Your task to perform on an android device: Search for Italian restaurants on Maps Image 0: 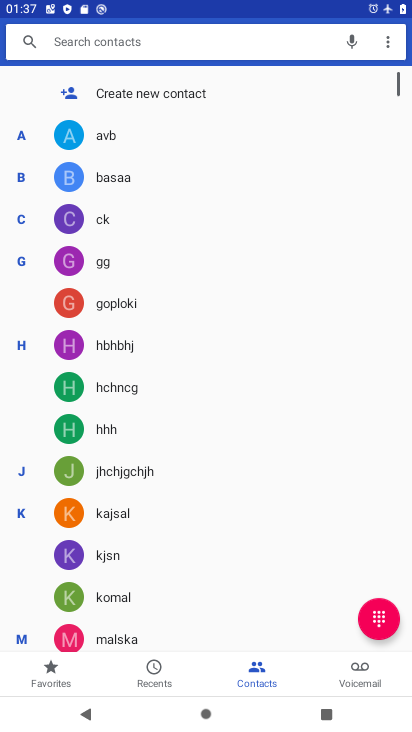
Step 0: press home button
Your task to perform on an android device: Search for Italian restaurants on Maps Image 1: 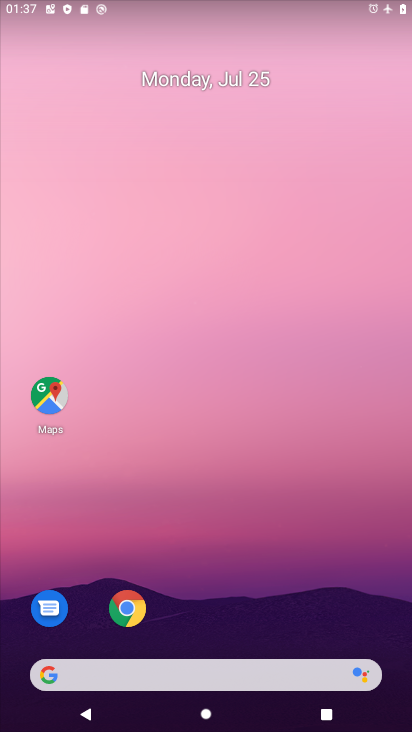
Step 1: drag from (228, 655) to (215, 92)
Your task to perform on an android device: Search for Italian restaurants on Maps Image 2: 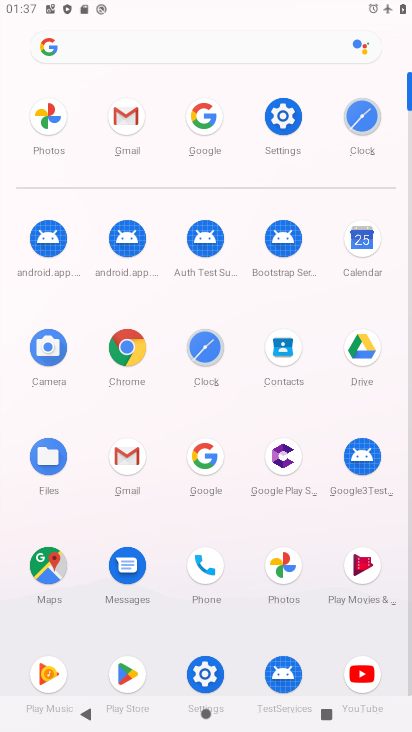
Step 2: click (41, 562)
Your task to perform on an android device: Search for Italian restaurants on Maps Image 3: 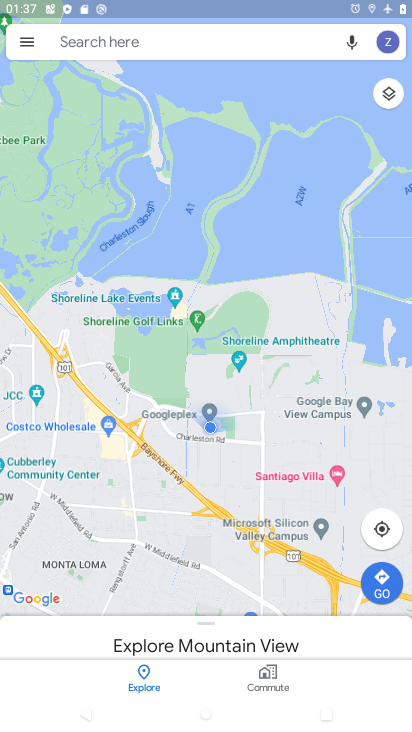
Step 3: click (175, 52)
Your task to perform on an android device: Search for Italian restaurants on Maps Image 4: 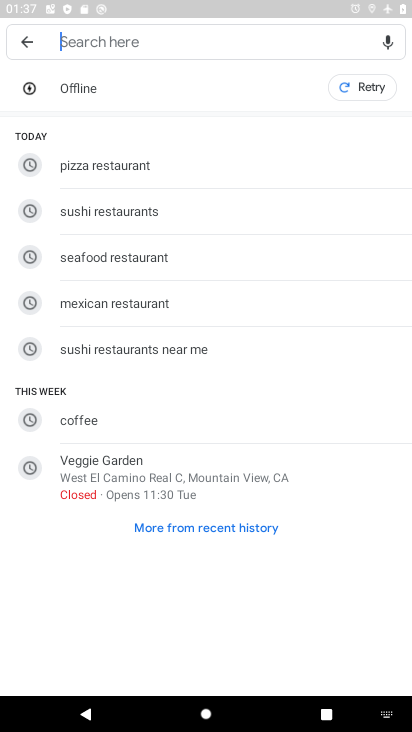
Step 4: type " Italian restaurants"
Your task to perform on an android device: Search for Italian restaurants on Maps Image 5: 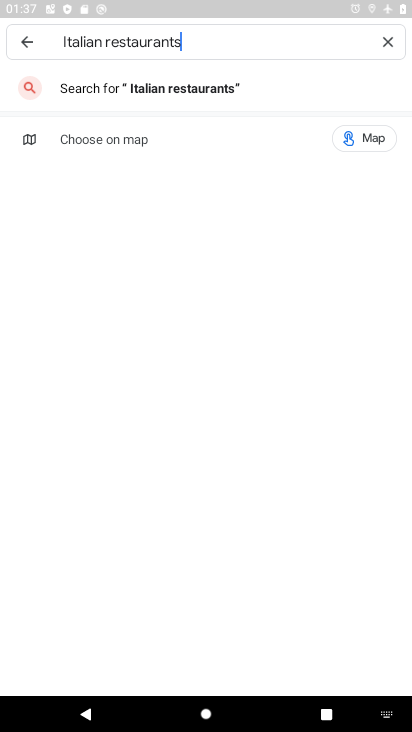
Step 5: type ""
Your task to perform on an android device: Search for Italian restaurants on Maps Image 6: 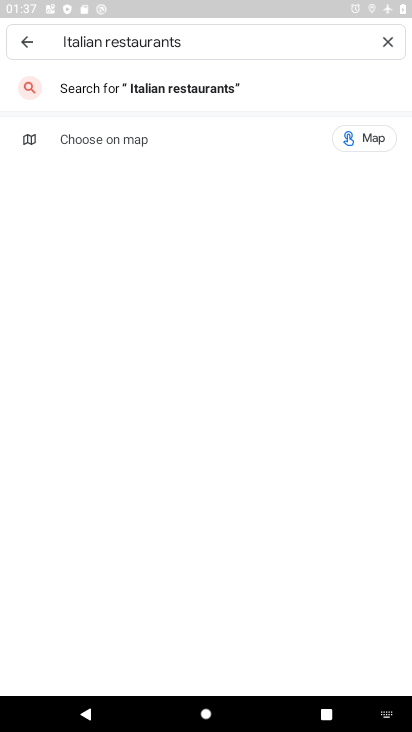
Step 6: click (166, 92)
Your task to perform on an android device: Search for Italian restaurants on Maps Image 7: 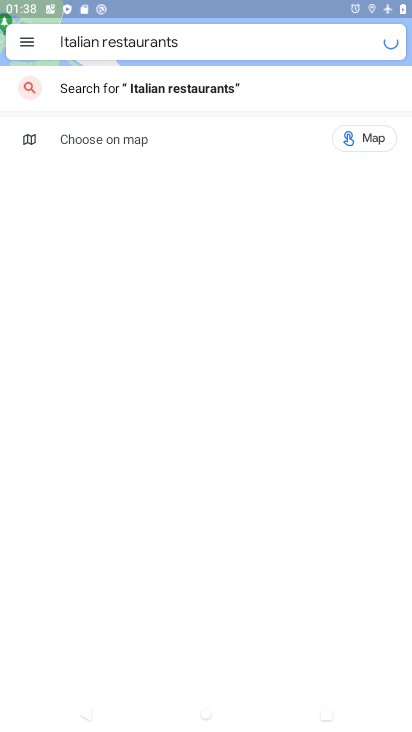
Step 7: task complete